Your task to perform on an android device: Find coffee shops on Maps Image 0: 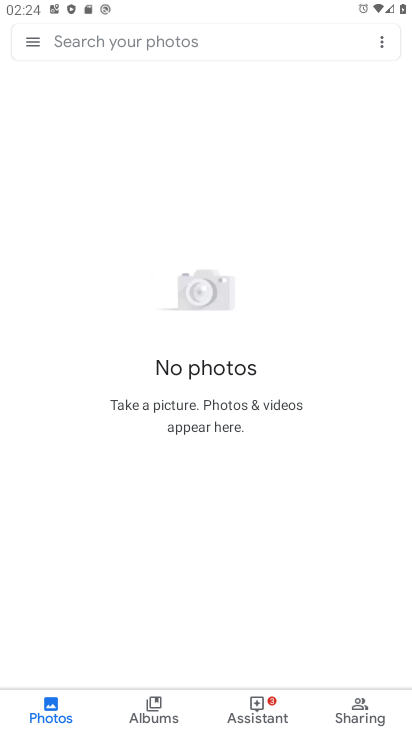
Step 0: press home button
Your task to perform on an android device: Find coffee shops on Maps Image 1: 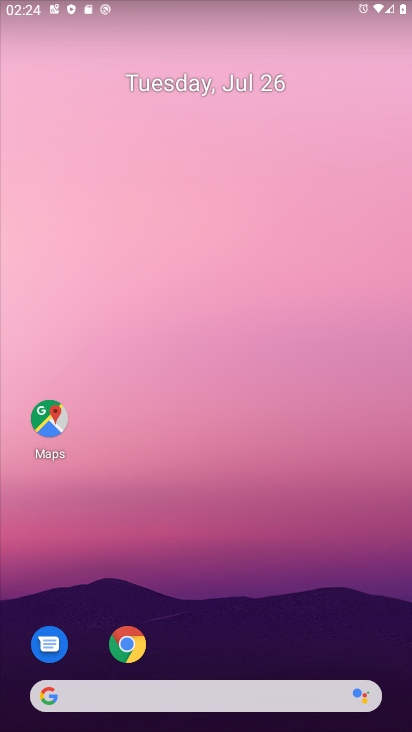
Step 1: drag from (181, 648) to (193, 146)
Your task to perform on an android device: Find coffee shops on Maps Image 2: 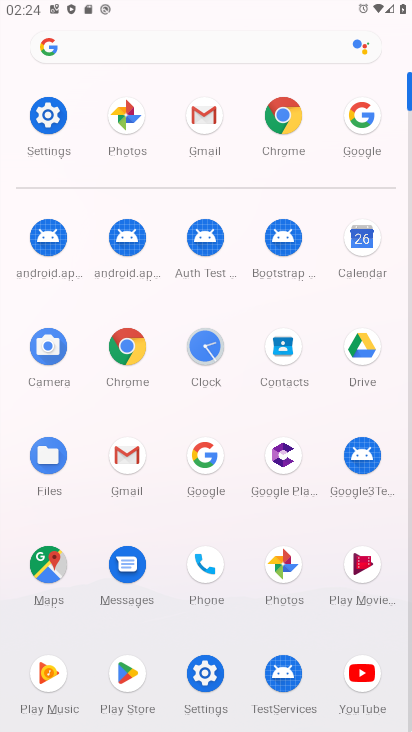
Step 2: click (52, 564)
Your task to perform on an android device: Find coffee shops on Maps Image 3: 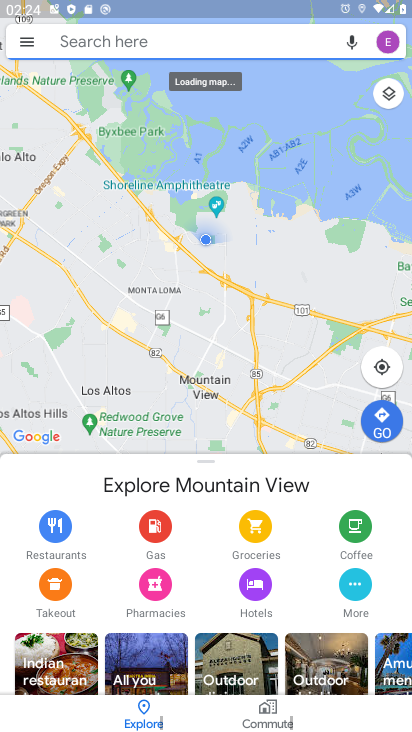
Step 3: click (193, 32)
Your task to perform on an android device: Find coffee shops on Maps Image 4: 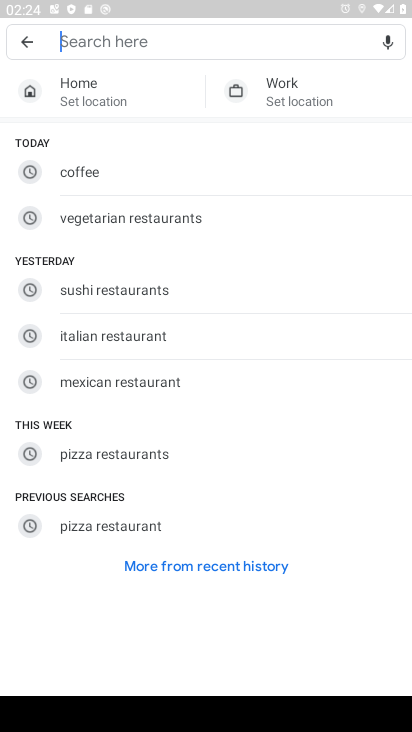
Step 4: click (90, 170)
Your task to perform on an android device: Find coffee shops on Maps Image 5: 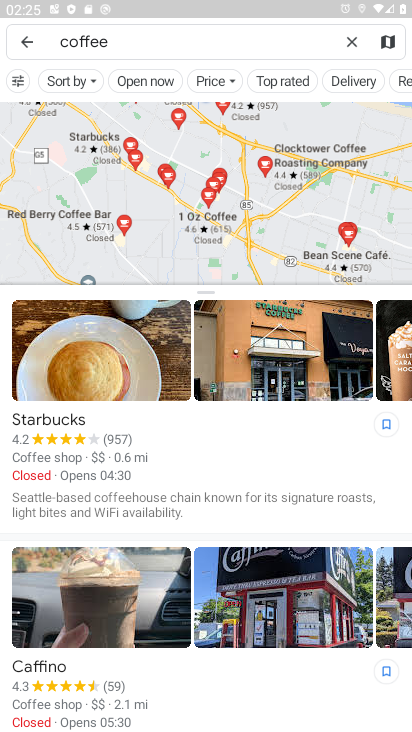
Step 5: task complete